Your task to perform on an android device: Open Google Maps Image 0: 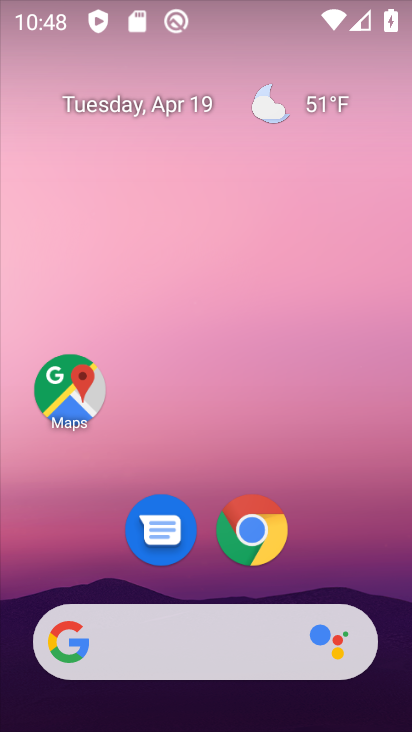
Step 0: click (56, 380)
Your task to perform on an android device: Open Google Maps Image 1: 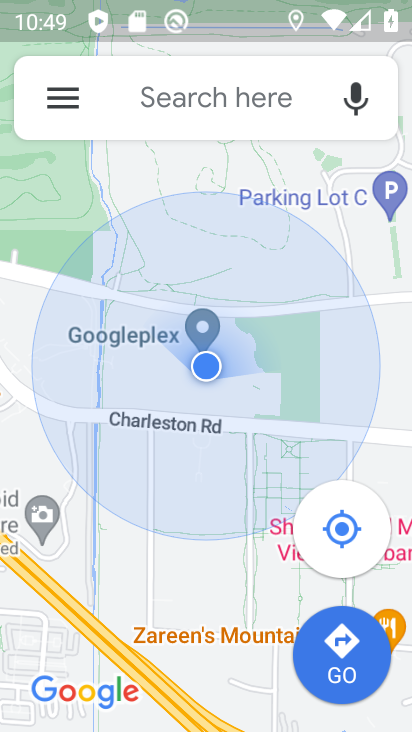
Step 1: task complete